Your task to perform on an android device: check battery use Image 0: 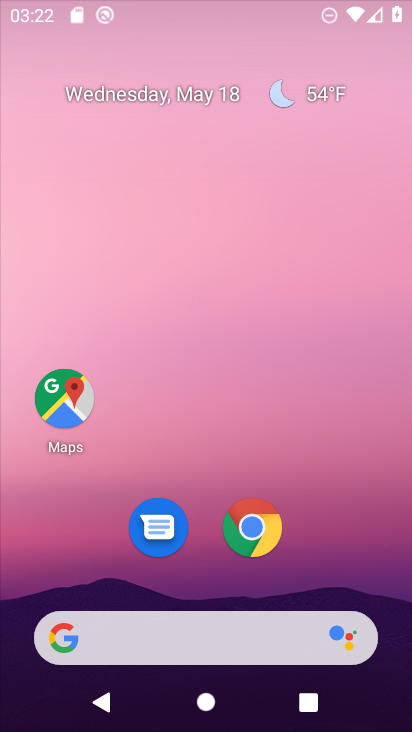
Step 0: drag from (221, 613) to (221, 81)
Your task to perform on an android device: check battery use Image 1: 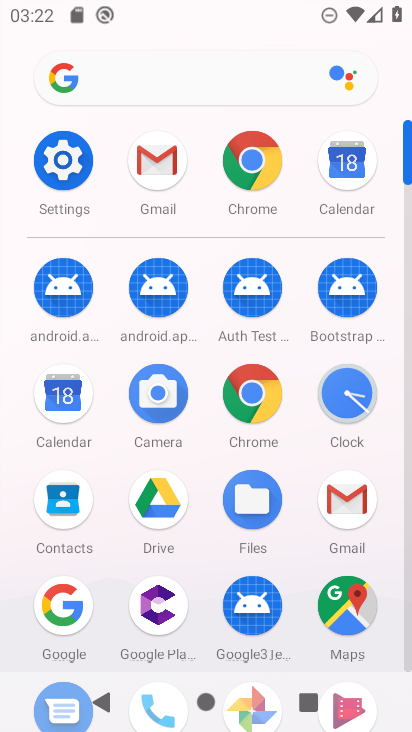
Step 1: click (63, 164)
Your task to perform on an android device: check battery use Image 2: 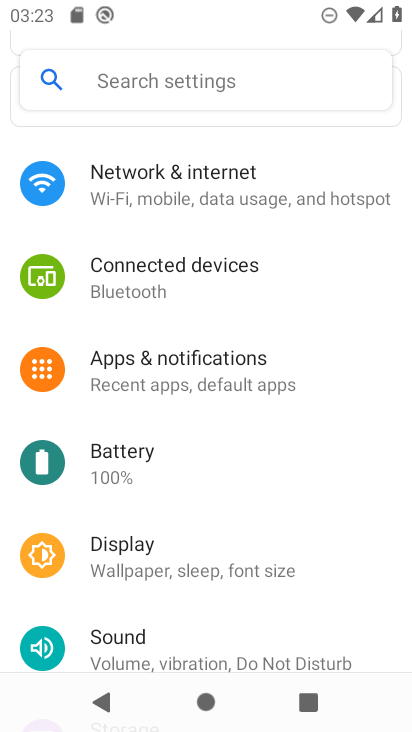
Step 2: click (120, 464)
Your task to perform on an android device: check battery use Image 3: 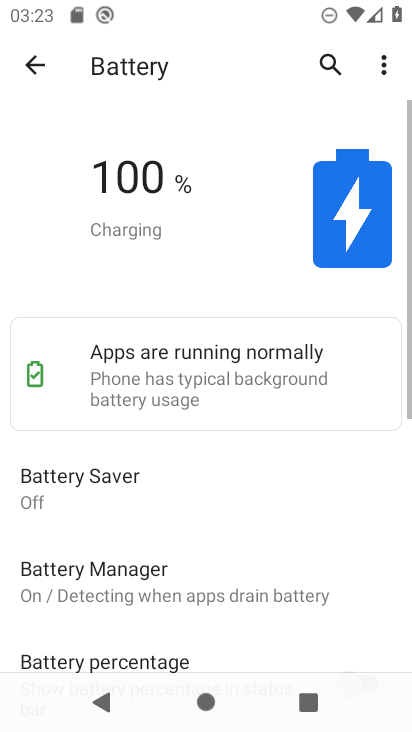
Step 3: task complete